Your task to perform on an android device: check data usage Image 0: 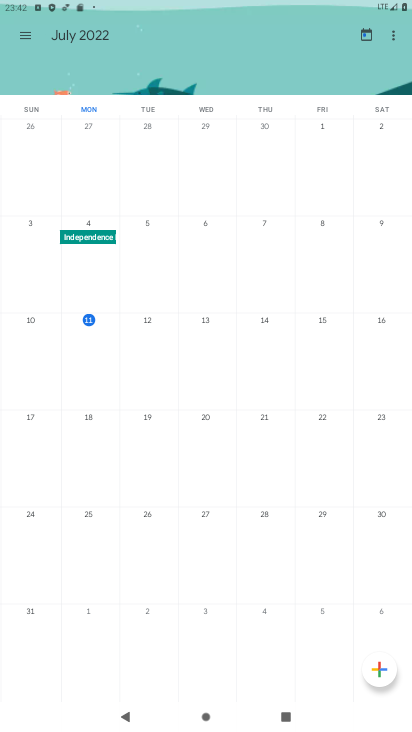
Step 0: press home button
Your task to perform on an android device: check data usage Image 1: 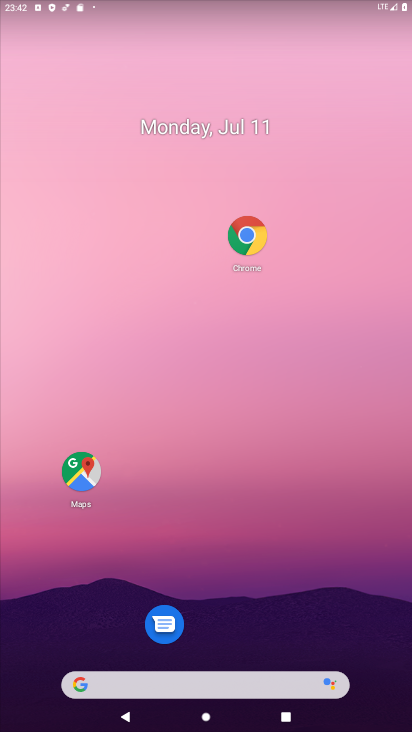
Step 1: drag from (232, 622) to (199, 208)
Your task to perform on an android device: check data usage Image 2: 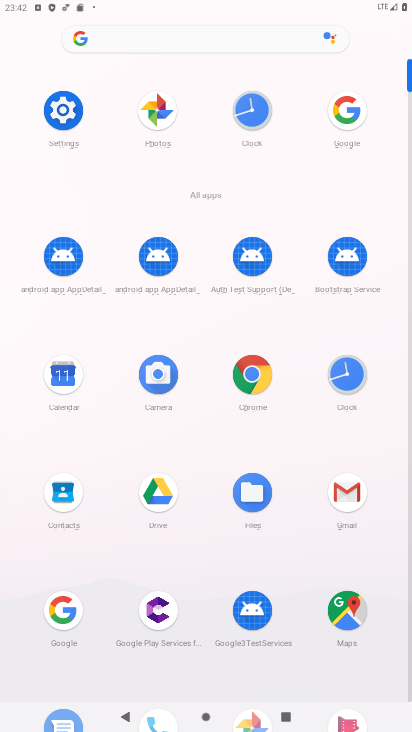
Step 2: click (75, 115)
Your task to perform on an android device: check data usage Image 3: 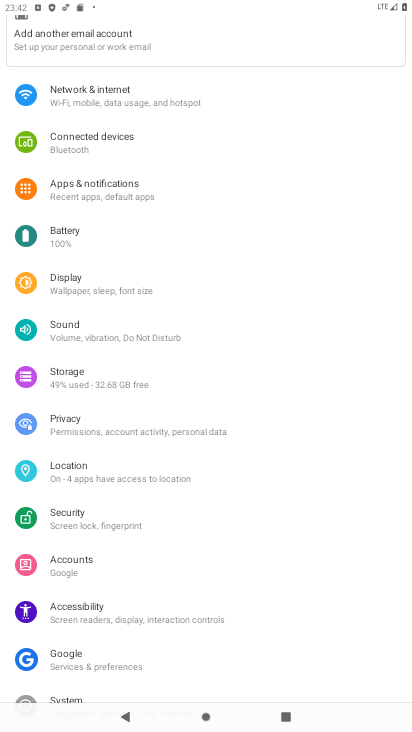
Step 3: click (146, 110)
Your task to perform on an android device: check data usage Image 4: 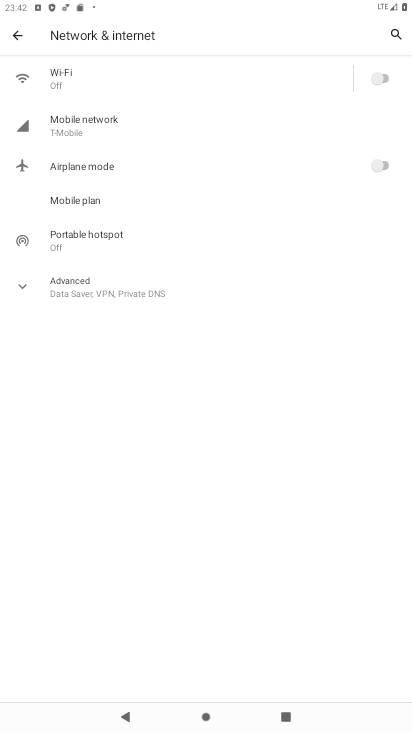
Step 4: click (121, 139)
Your task to perform on an android device: check data usage Image 5: 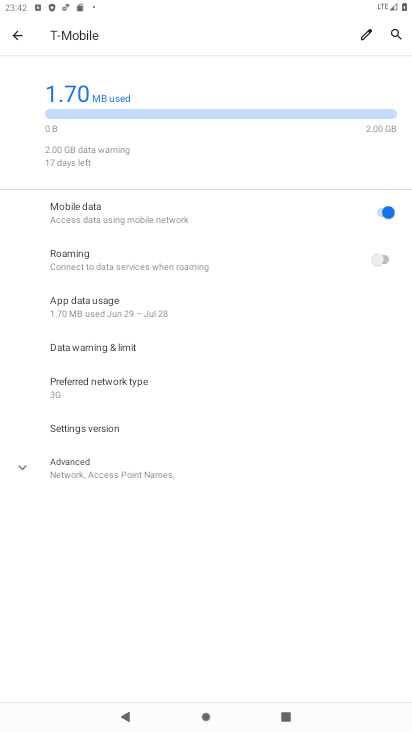
Step 5: click (156, 298)
Your task to perform on an android device: check data usage Image 6: 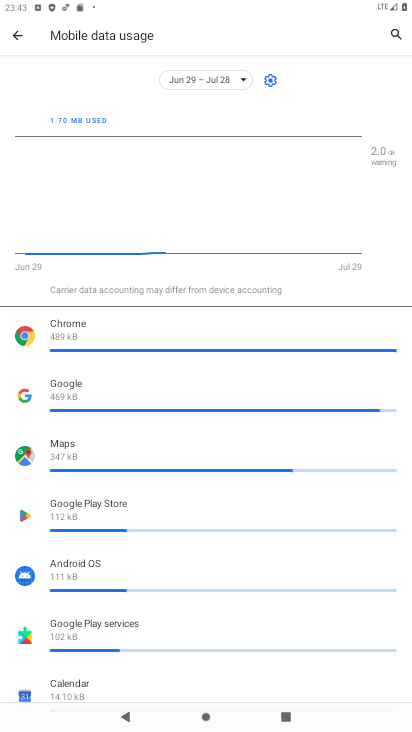
Step 6: task complete